Your task to perform on an android device: turn on the 24-hour format for clock Image 0: 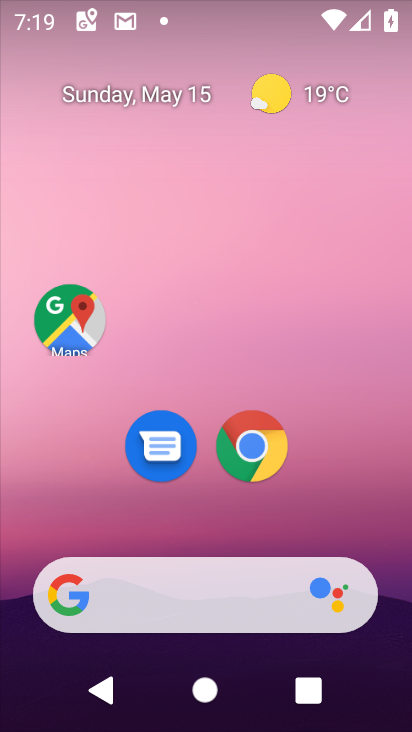
Step 0: drag from (204, 551) to (171, 149)
Your task to perform on an android device: turn on the 24-hour format for clock Image 1: 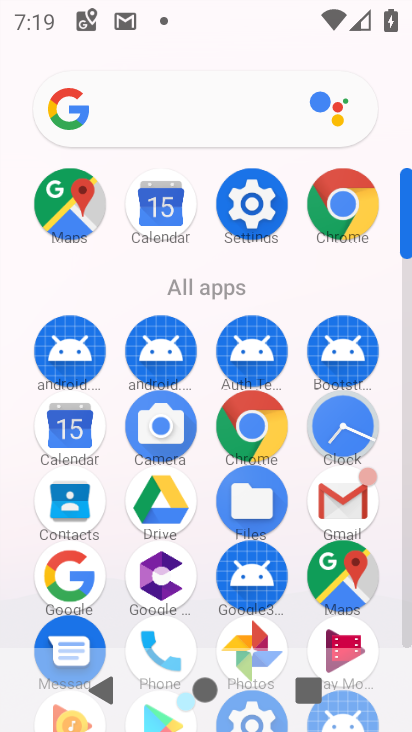
Step 1: click (328, 437)
Your task to perform on an android device: turn on the 24-hour format for clock Image 2: 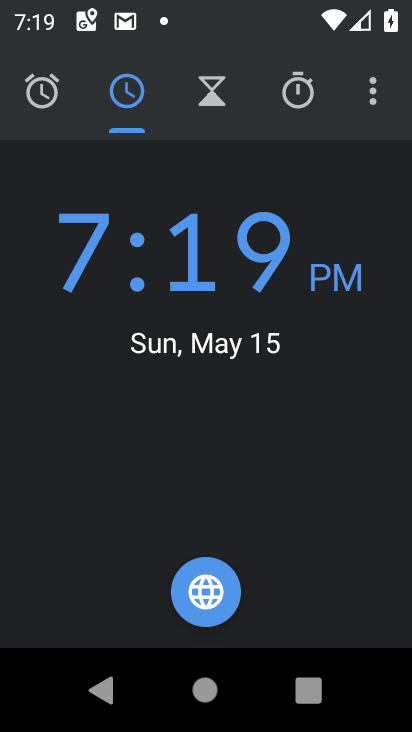
Step 2: click (364, 115)
Your task to perform on an android device: turn on the 24-hour format for clock Image 3: 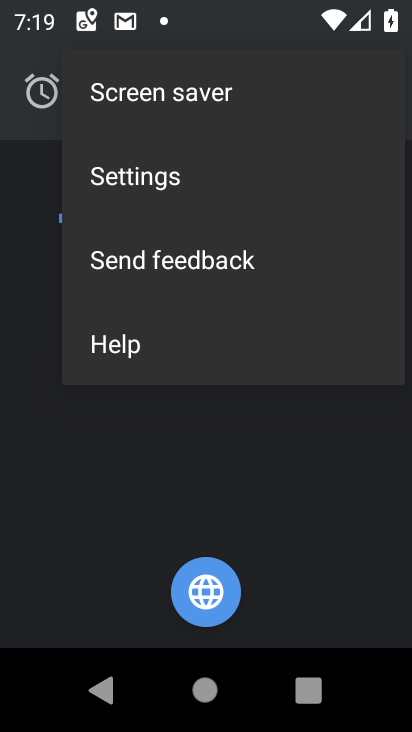
Step 3: click (262, 180)
Your task to perform on an android device: turn on the 24-hour format for clock Image 4: 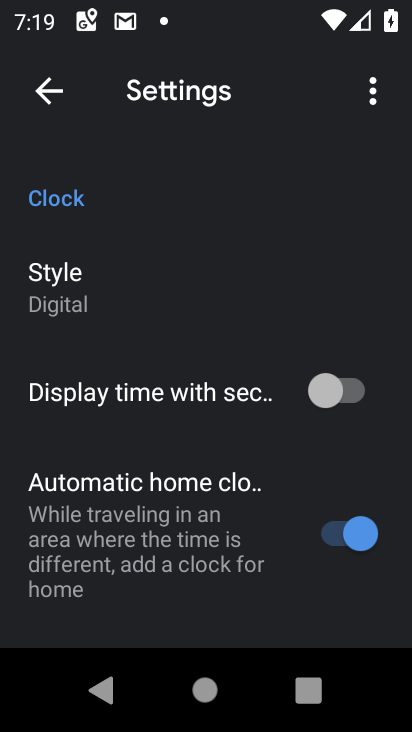
Step 4: drag from (175, 457) to (188, 218)
Your task to perform on an android device: turn on the 24-hour format for clock Image 5: 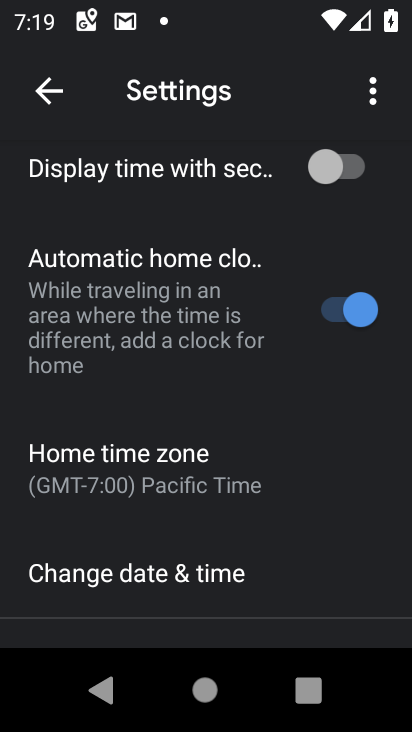
Step 5: click (137, 547)
Your task to perform on an android device: turn on the 24-hour format for clock Image 6: 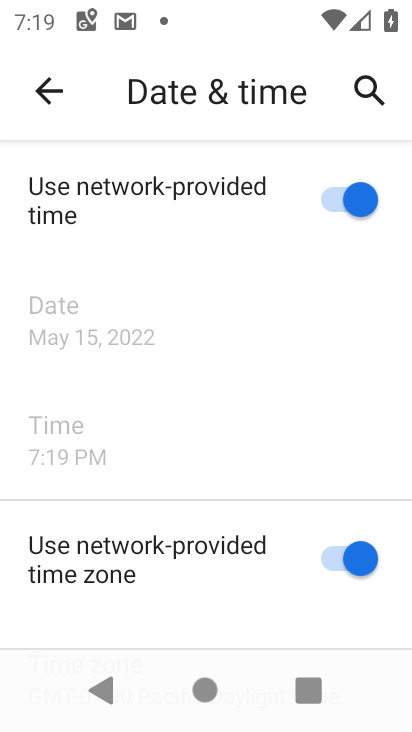
Step 6: drag from (181, 302) to (200, 197)
Your task to perform on an android device: turn on the 24-hour format for clock Image 7: 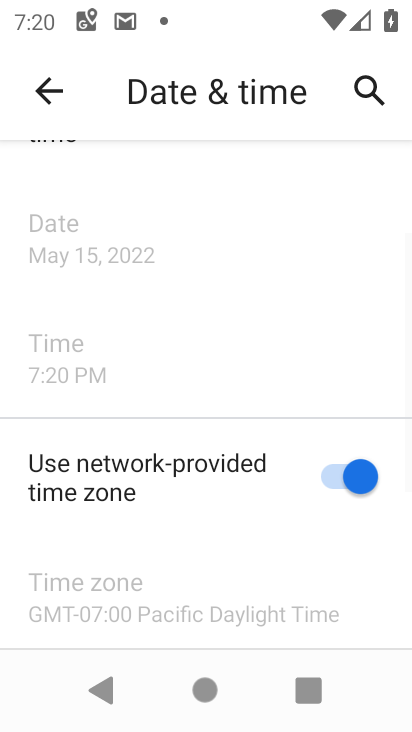
Step 7: drag from (222, 554) to (204, 336)
Your task to perform on an android device: turn on the 24-hour format for clock Image 8: 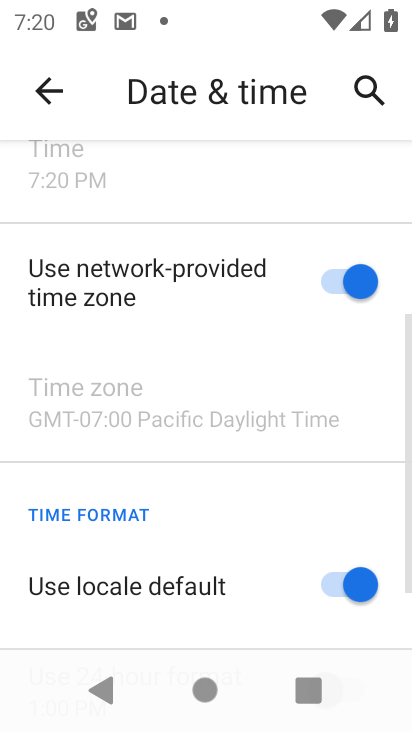
Step 8: drag from (234, 532) to (247, 284)
Your task to perform on an android device: turn on the 24-hour format for clock Image 9: 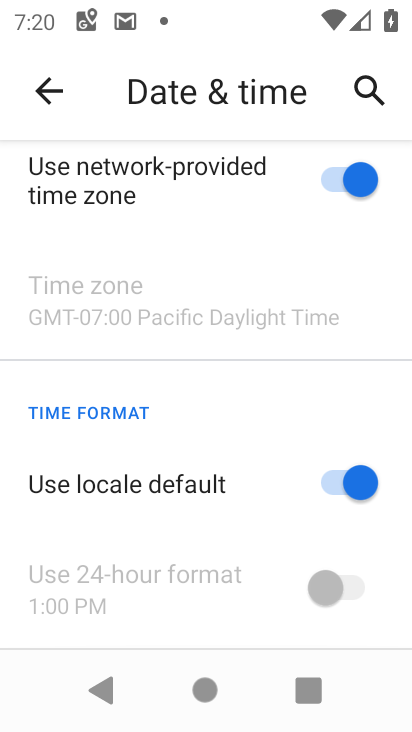
Step 9: click (348, 490)
Your task to perform on an android device: turn on the 24-hour format for clock Image 10: 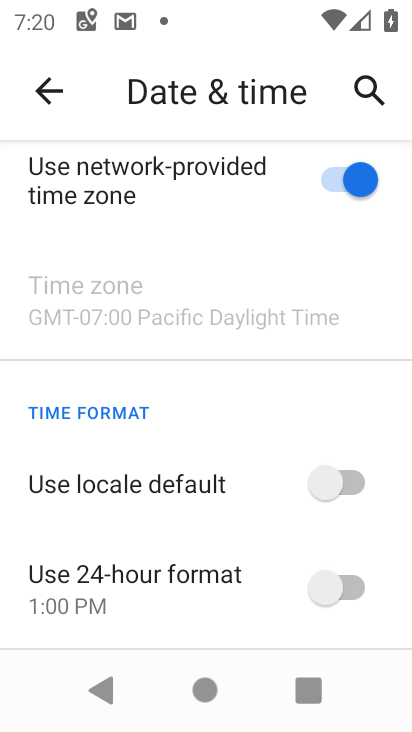
Step 10: click (357, 579)
Your task to perform on an android device: turn on the 24-hour format for clock Image 11: 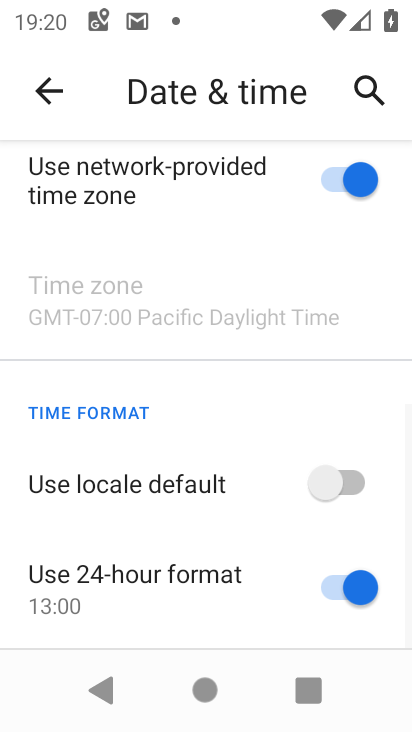
Step 11: task complete